Your task to perform on an android device: Open the stopwatch Image 0: 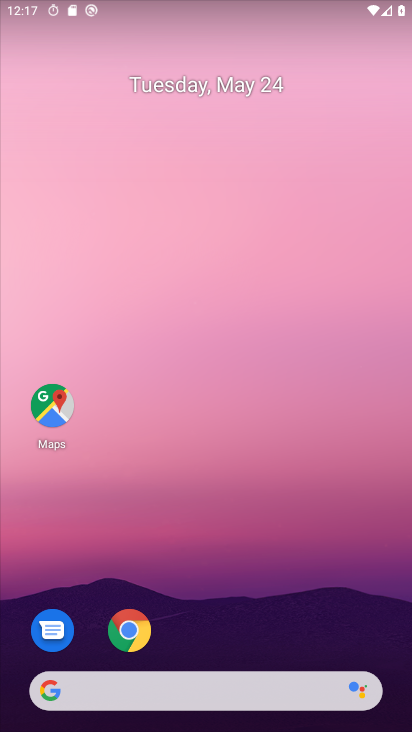
Step 0: drag from (207, 638) to (367, 1)
Your task to perform on an android device: Open the stopwatch Image 1: 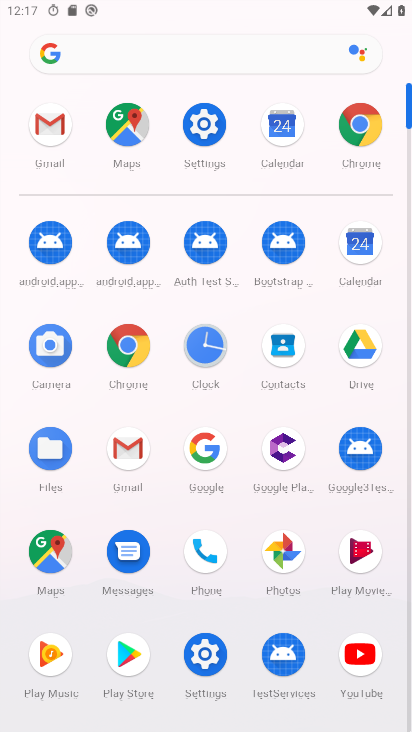
Step 1: click (208, 356)
Your task to perform on an android device: Open the stopwatch Image 2: 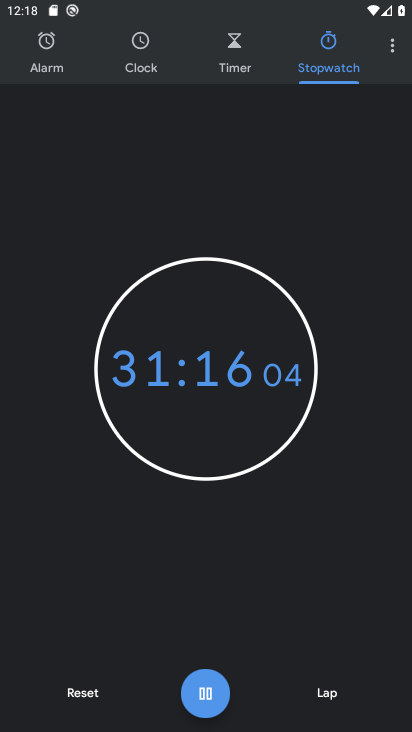
Step 2: task complete